Your task to perform on an android device: Go to battery settings Image 0: 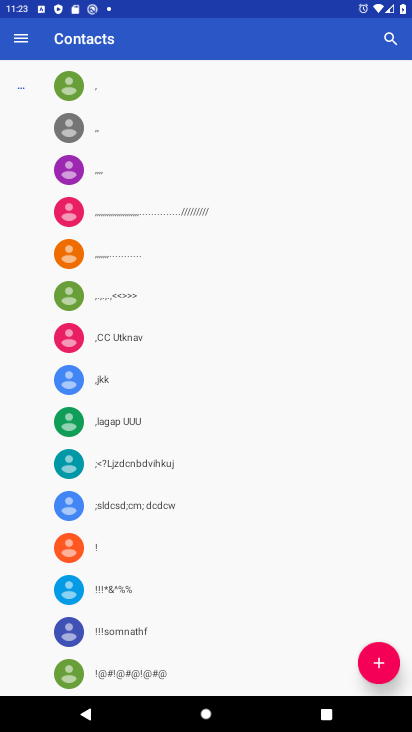
Step 0: press home button
Your task to perform on an android device: Go to battery settings Image 1: 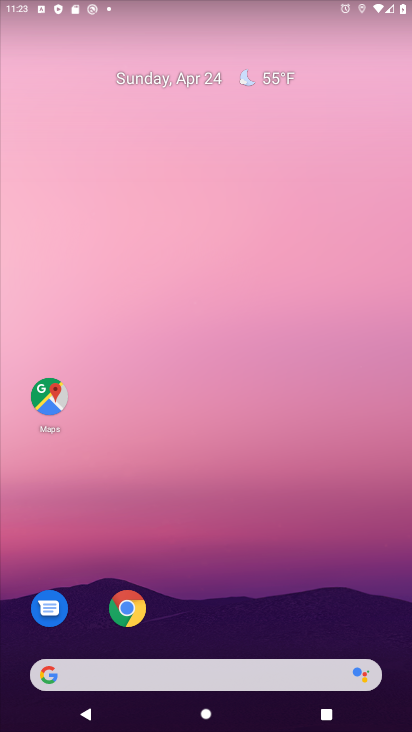
Step 1: drag from (350, 612) to (279, 187)
Your task to perform on an android device: Go to battery settings Image 2: 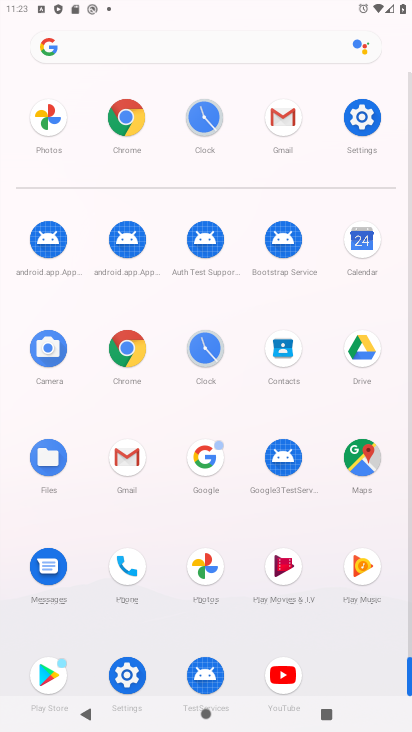
Step 2: click (125, 679)
Your task to perform on an android device: Go to battery settings Image 3: 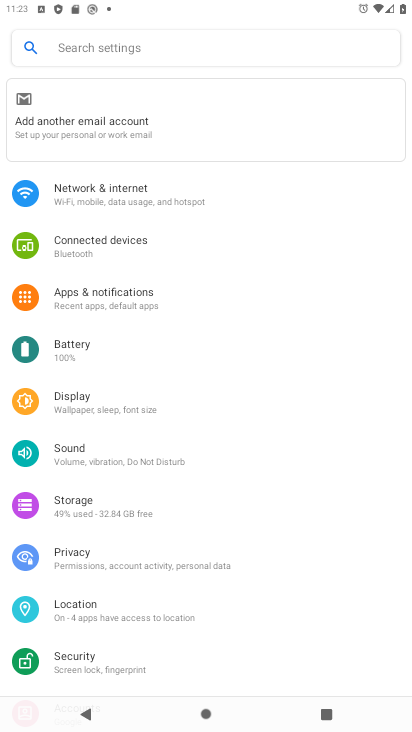
Step 3: click (64, 345)
Your task to perform on an android device: Go to battery settings Image 4: 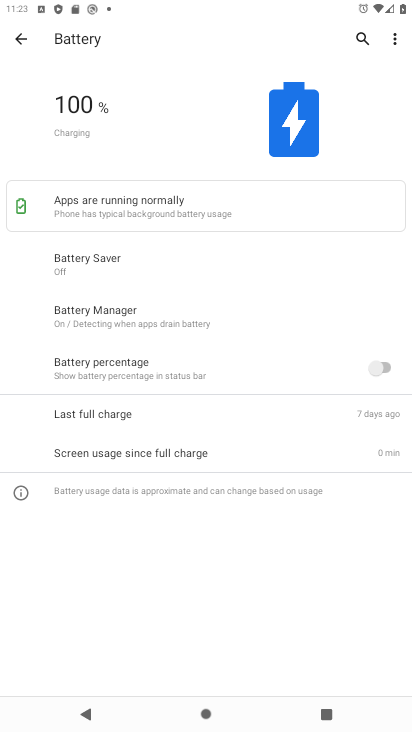
Step 4: click (393, 42)
Your task to perform on an android device: Go to battery settings Image 5: 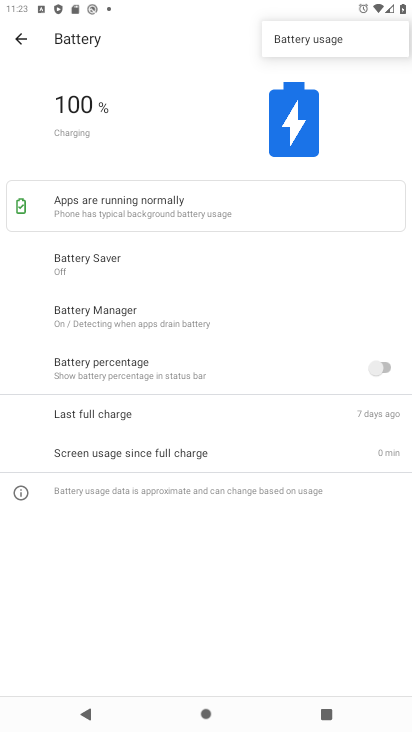
Step 5: click (297, 39)
Your task to perform on an android device: Go to battery settings Image 6: 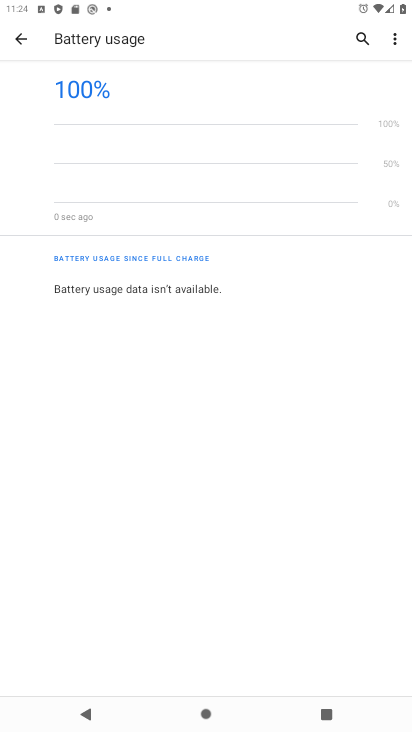
Step 6: task complete